Your task to perform on an android device: Go to notification settings Image 0: 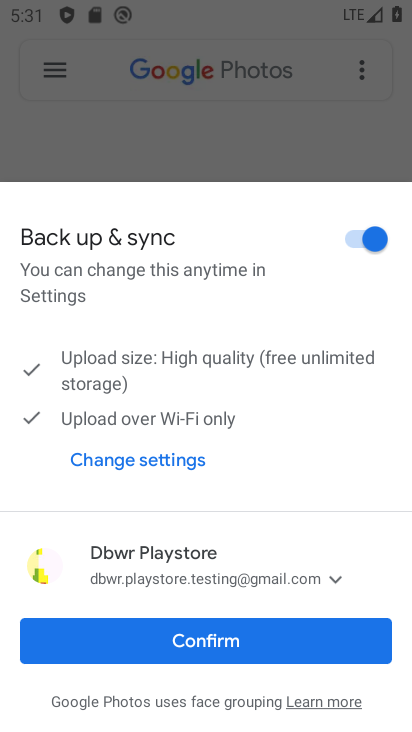
Step 0: drag from (263, 18) to (214, 626)
Your task to perform on an android device: Go to notification settings Image 1: 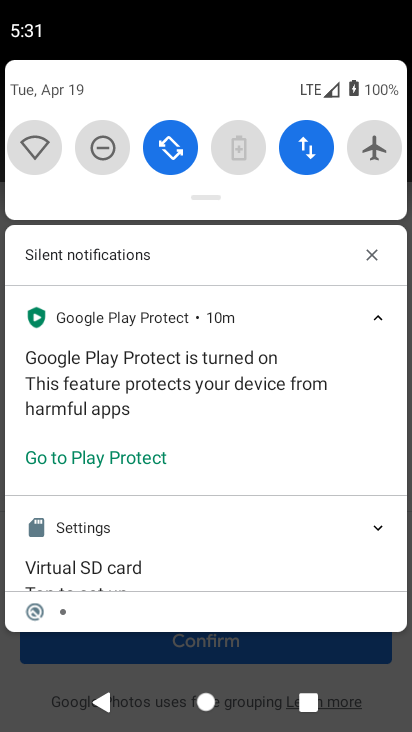
Step 1: drag from (247, 73) to (242, 627)
Your task to perform on an android device: Go to notification settings Image 2: 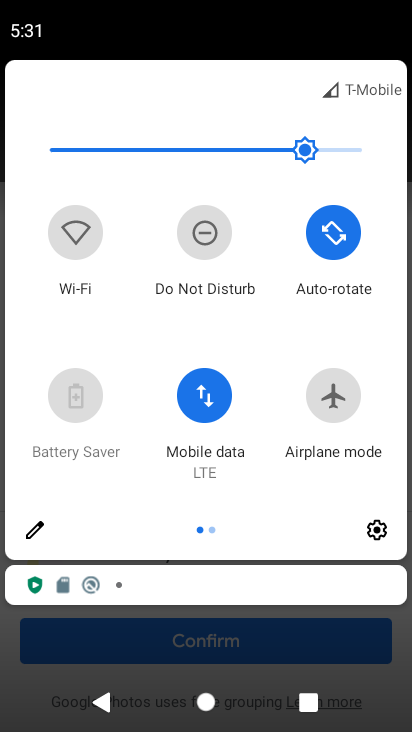
Step 2: click (384, 534)
Your task to perform on an android device: Go to notification settings Image 3: 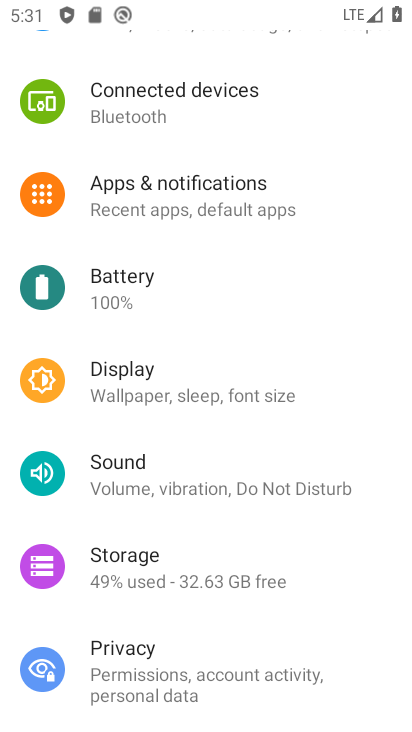
Step 3: click (226, 194)
Your task to perform on an android device: Go to notification settings Image 4: 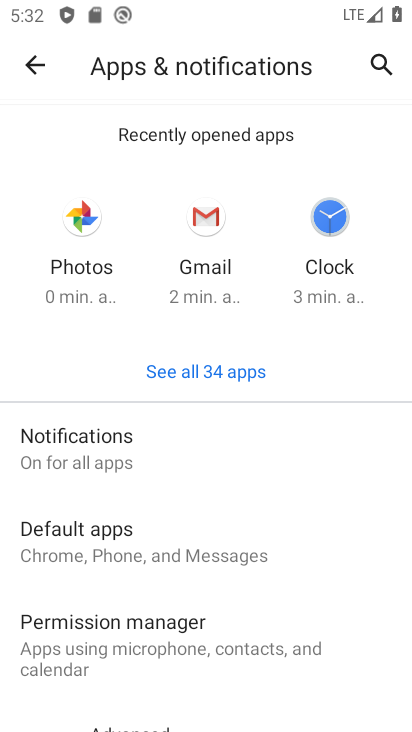
Step 4: task complete